Your task to perform on an android device: open sync settings in chrome Image 0: 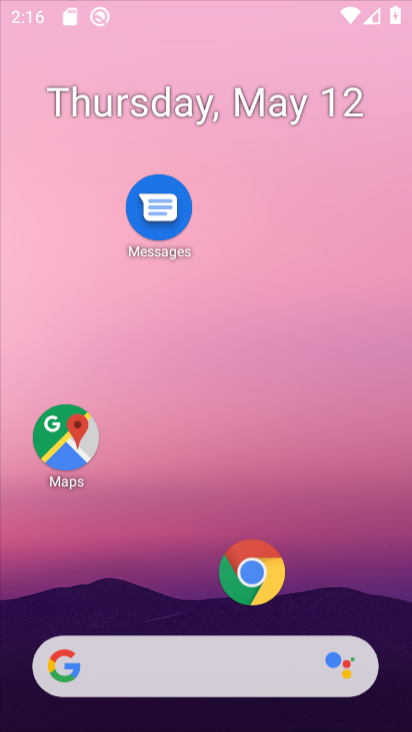
Step 0: drag from (192, 373) to (209, 209)
Your task to perform on an android device: open sync settings in chrome Image 1: 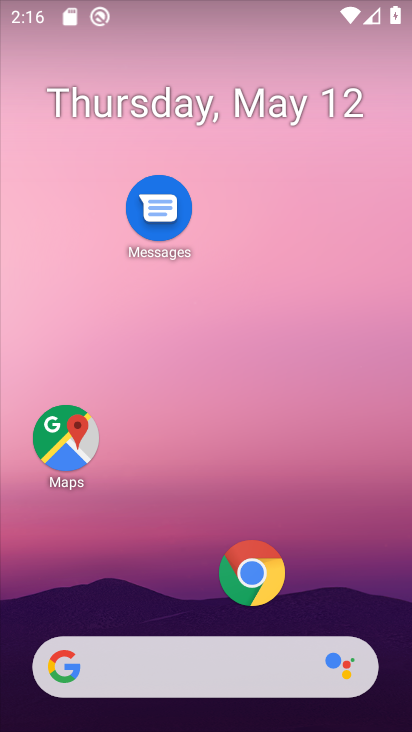
Step 1: drag from (197, 490) to (257, 113)
Your task to perform on an android device: open sync settings in chrome Image 2: 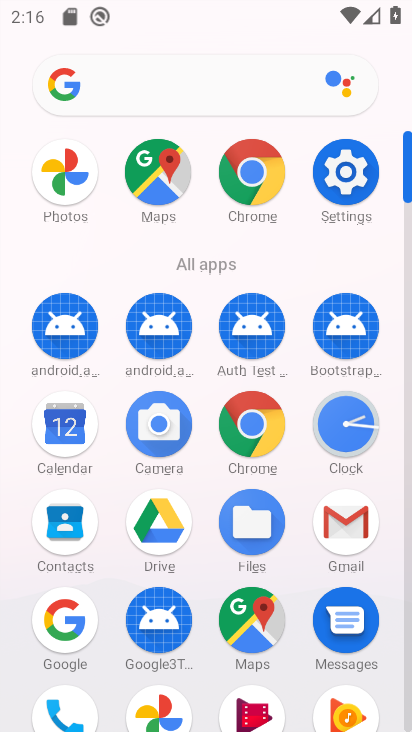
Step 2: click (245, 410)
Your task to perform on an android device: open sync settings in chrome Image 3: 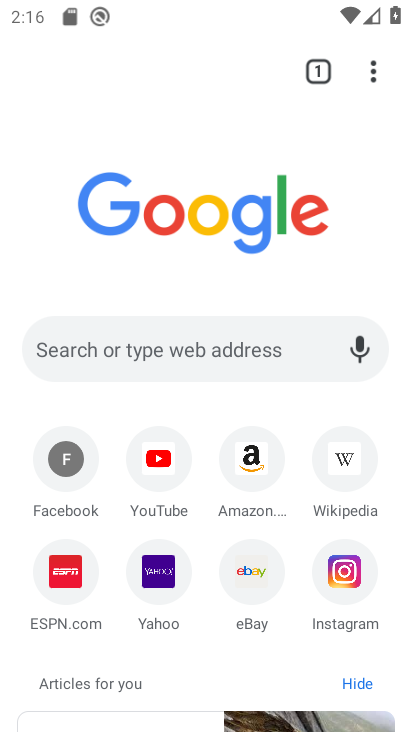
Step 3: drag from (371, 72) to (182, 600)
Your task to perform on an android device: open sync settings in chrome Image 4: 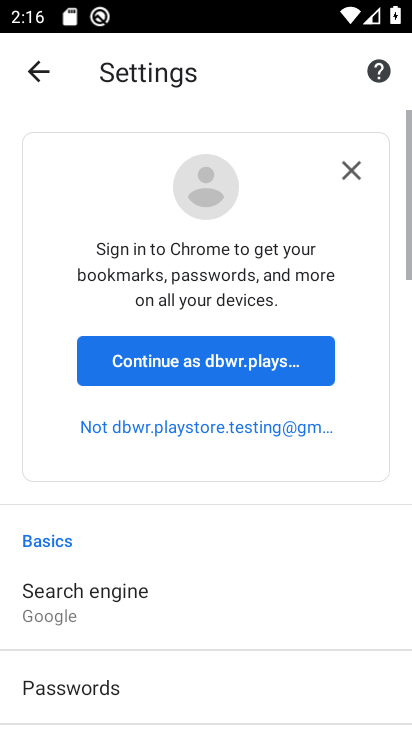
Step 4: drag from (192, 561) to (249, 51)
Your task to perform on an android device: open sync settings in chrome Image 5: 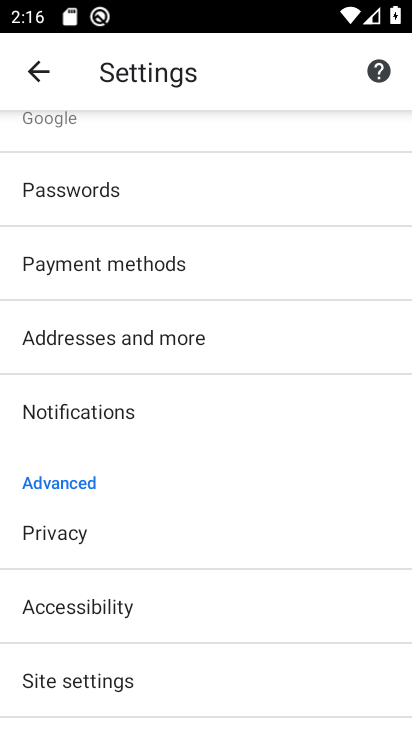
Step 5: drag from (183, 599) to (297, 142)
Your task to perform on an android device: open sync settings in chrome Image 6: 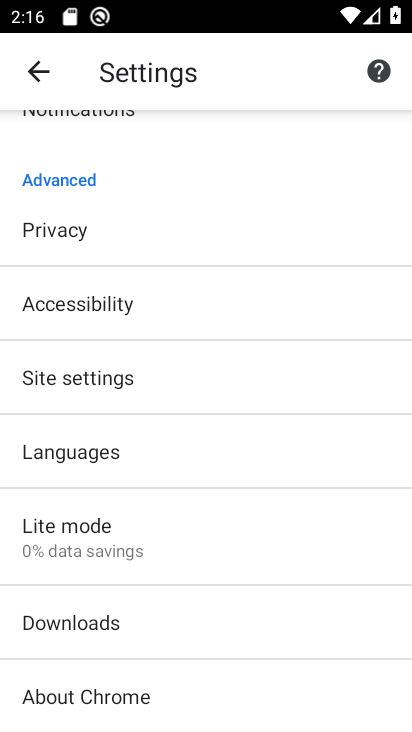
Step 6: click (104, 385)
Your task to perform on an android device: open sync settings in chrome Image 7: 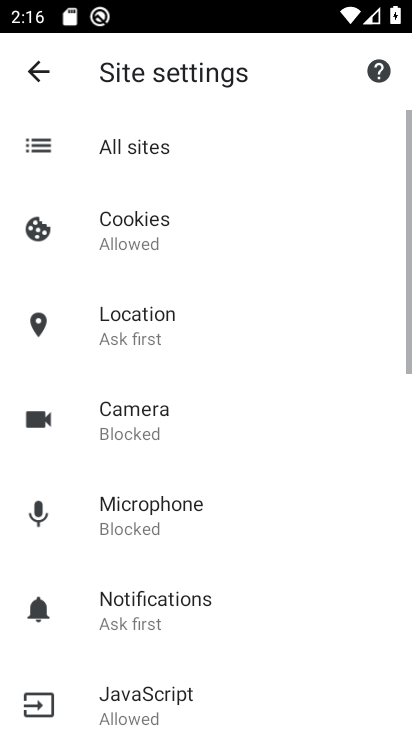
Step 7: drag from (203, 654) to (280, 100)
Your task to perform on an android device: open sync settings in chrome Image 8: 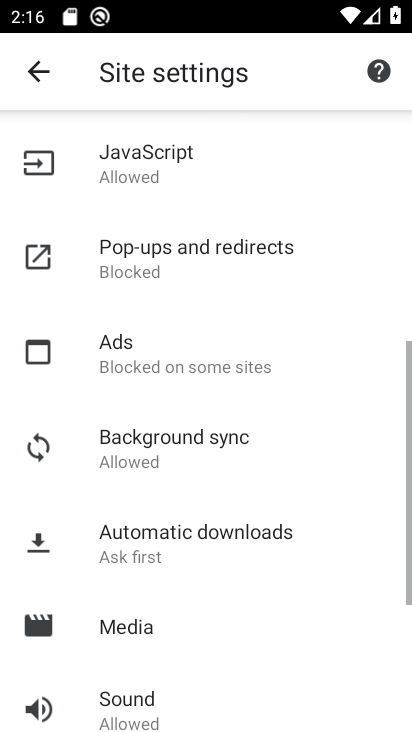
Step 8: click (174, 463)
Your task to perform on an android device: open sync settings in chrome Image 9: 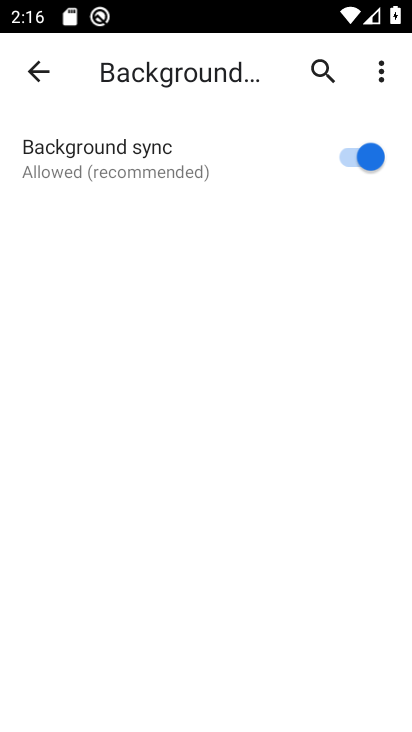
Step 9: task complete